Your task to perform on an android device: stop showing notifications on the lock screen Image 0: 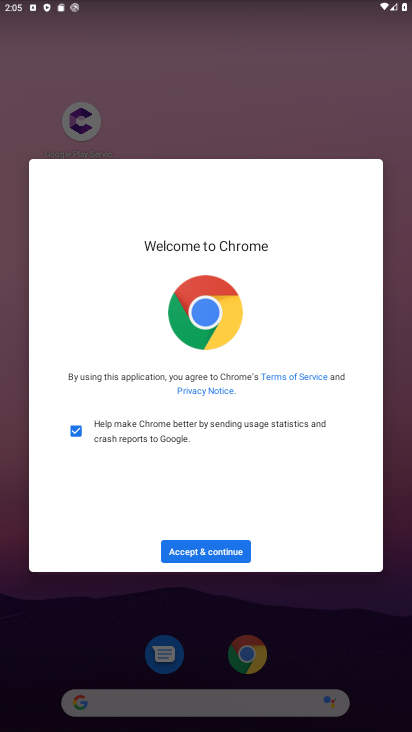
Step 0: click (210, 546)
Your task to perform on an android device: stop showing notifications on the lock screen Image 1: 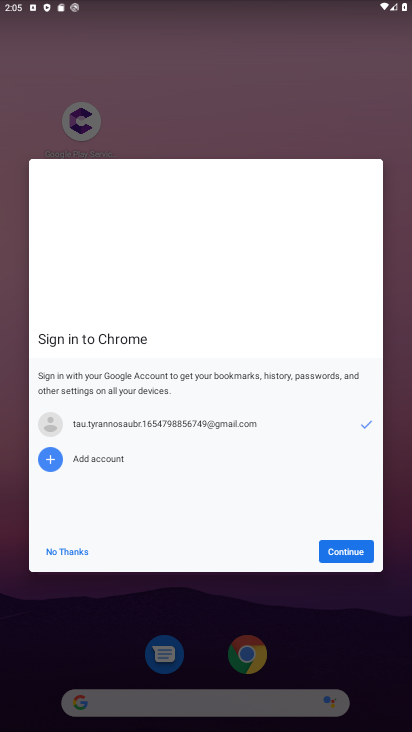
Step 1: click (52, 550)
Your task to perform on an android device: stop showing notifications on the lock screen Image 2: 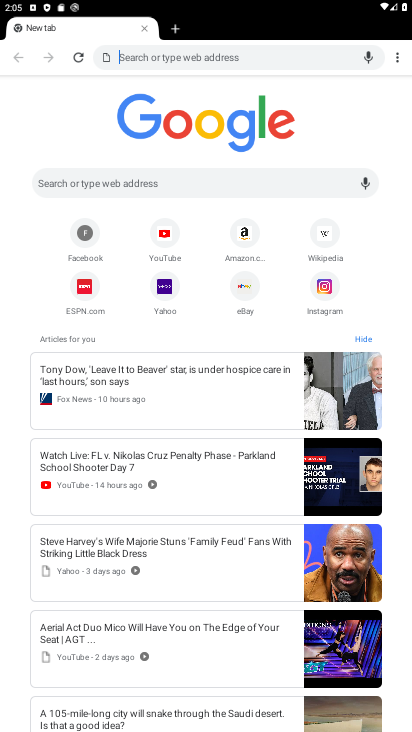
Step 2: press back button
Your task to perform on an android device: stop showing notifications on the lock screen Image 3: 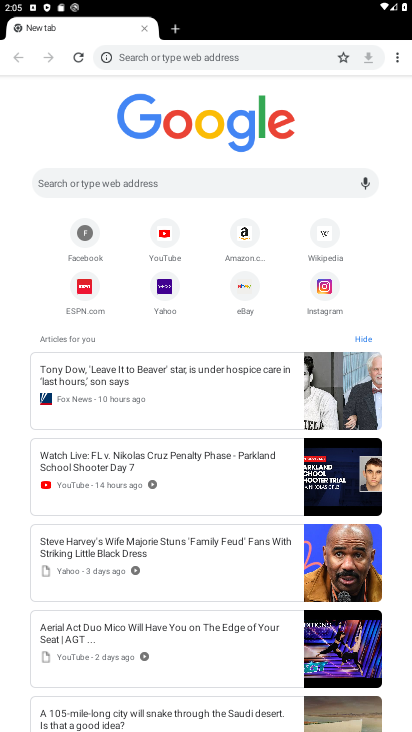
Step 3: press back button
Your task to perform on an android device: stop showing notifications on the lock screen Image 4: 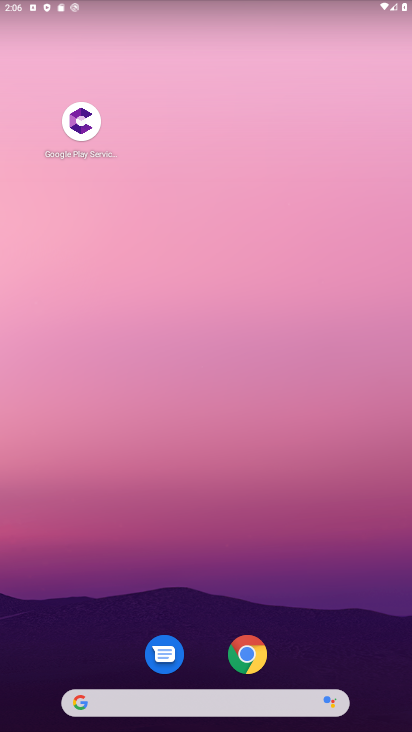
Step 4: drag from (57, 522) to (250, 193)
Your task to perform on an android device: stop showing notifications on the lock screen Image 5: 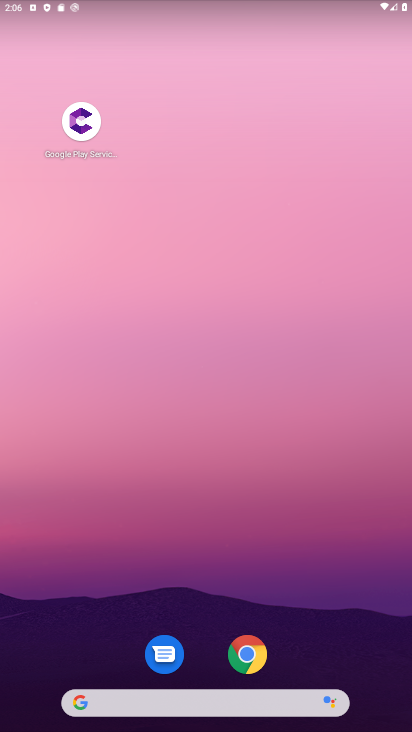
Step 5: drag from (15, 656) to (274, 1)
Your task to perform on an android device: stop showing notifications on the lock screen Image 6: 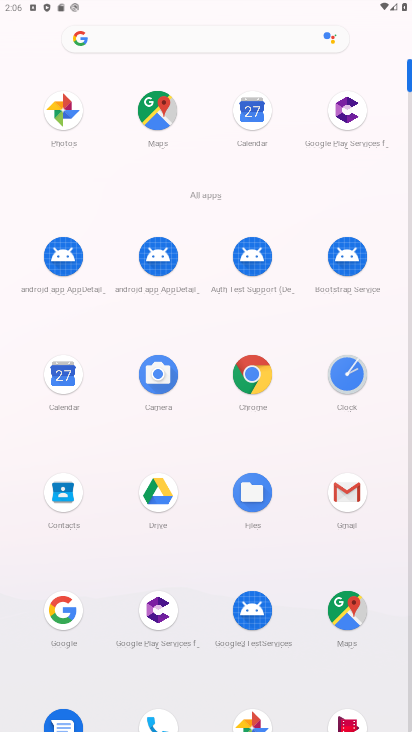
Step 6: drag from (101, 654) to (275, 146)
Your task to perform on an android device: stop showing notifications on the lock screen Image 7: 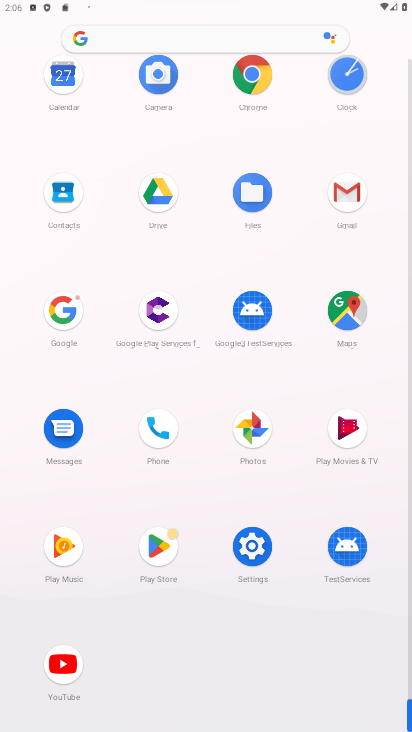
Step 7: click (253, 554)
Your task to perform on an android device: stop showing notifications on the lock screen Image 8: 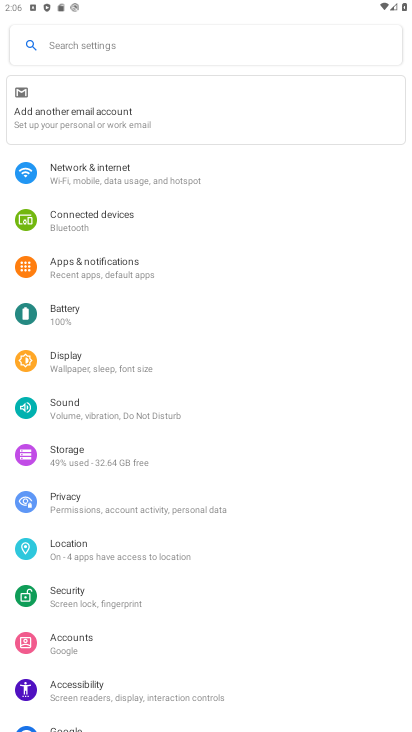
Step 8: click (163, 273)
Your task to perform on an android device: stop showing notifications on the lock screen Image 9: 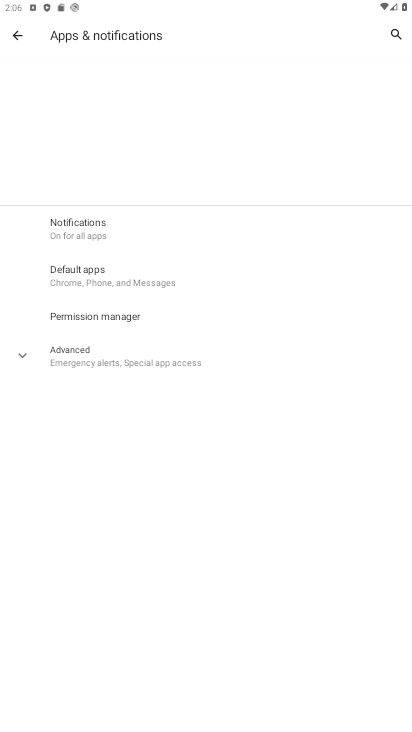
Step 9: click (94, 227)
Your task to perform on an android device: stop showing notifications on the lock screen Image 10: 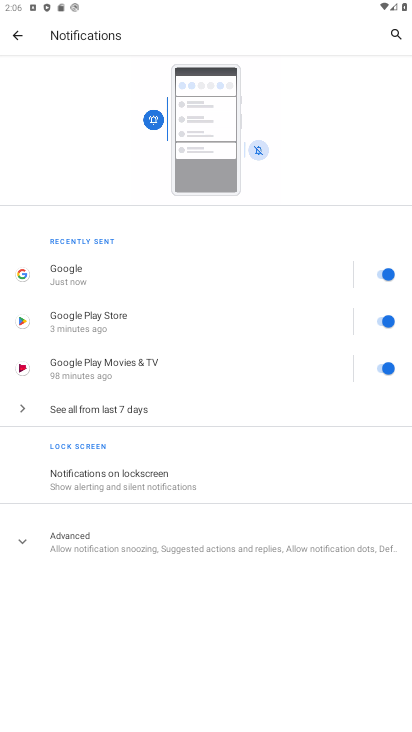
Step 10: click (171, 478)
Your task to perform on an android device: stop showing notifications on the lock screen Image 11: 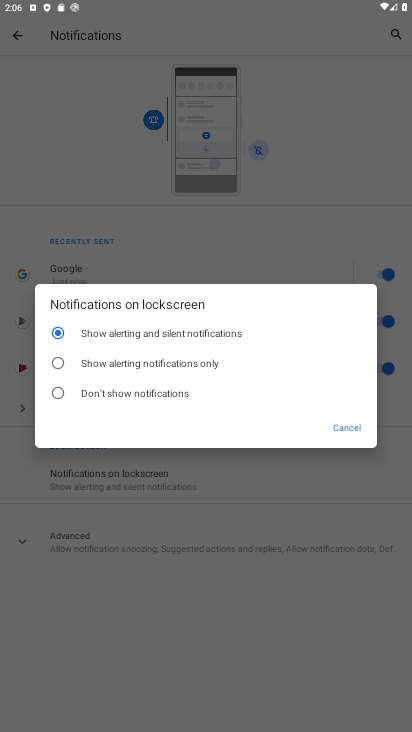
Step 11: click (51, 396)
Your task to perform on an android device: stop showing notifications on the lock screen Image 12: 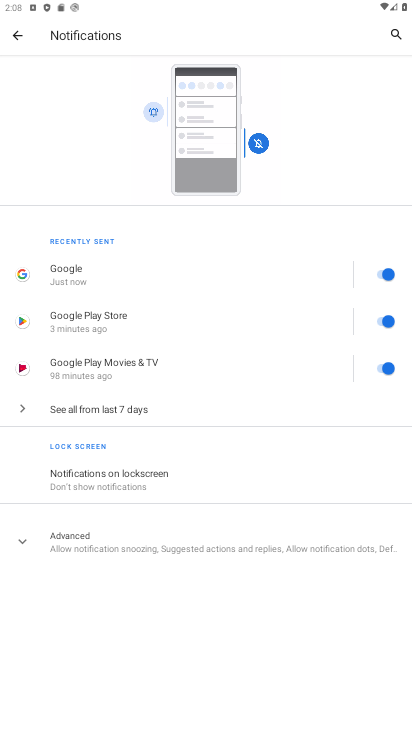
Step 12: task complete